Your task to perform on an android device: Open calendar and show me the fourth week of next month Image 0: 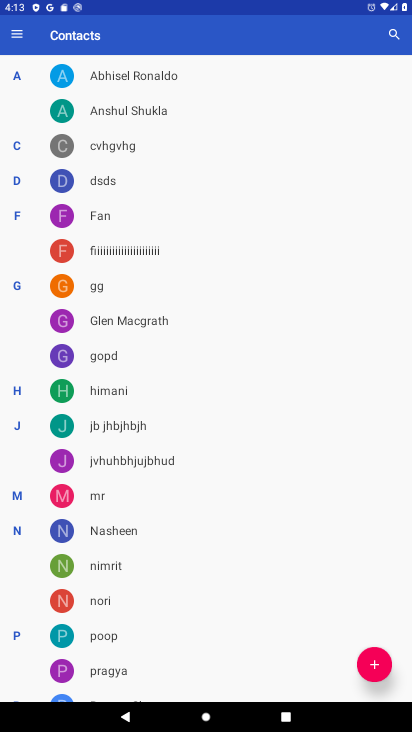
Step 0: press home button
Your task to perform on an android device: Open calendar and show me the fourth week of next month Image 1: 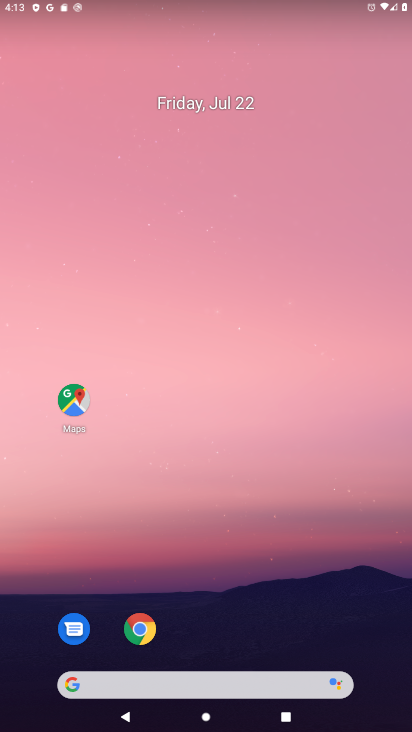
Step 1: drag from (231, 683) to (250, 259)
Your task to perform on an android device: Open calendar and show me the fourth week of next month Image 2: 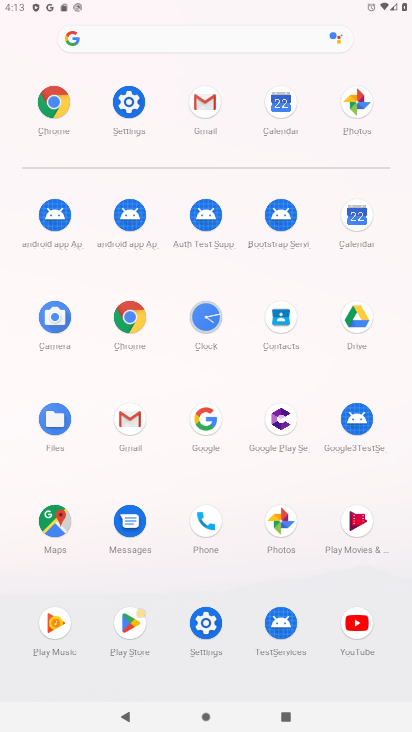
Step 2: click (134, 321)
Your task to perform on an android device: Open calendar and show me the fourth week of next month Image 3: 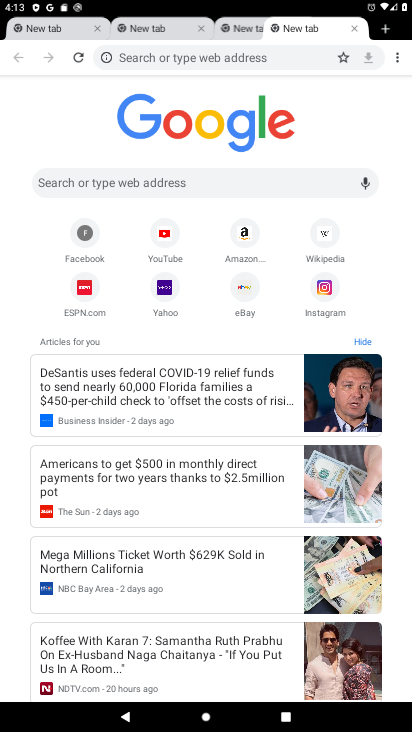
Step 3: press home button
Your task to perform on an android device: Open calendar and show me the fourth week of next month Image 4: 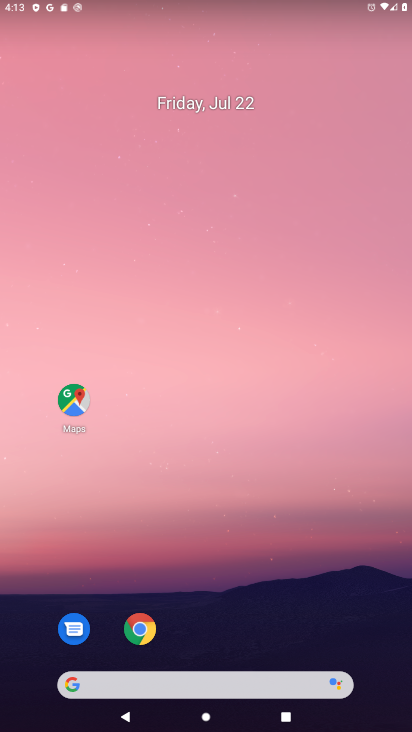
Step 4: drag from (264, 639) to (305, 197)
Your task to perform on an android device: Open calendar and show me the fourth week of next month Image 5: 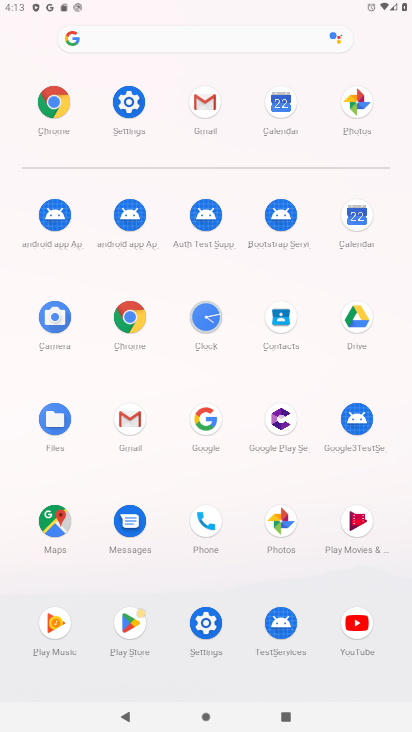
Step 5: click (288, 129)
Your task to perform on an android device: Open calendar and show me the fourth week of next month Image 6: 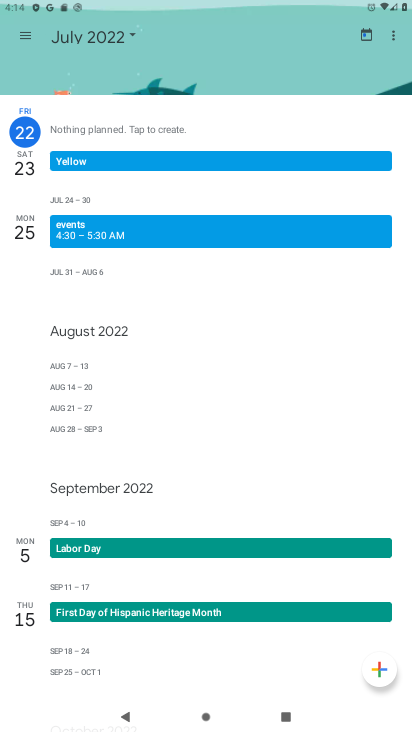
Step 6: click (120, 43)
Your task to perform on an android device: Open calendar and show me the fourth week of next month Image 7: 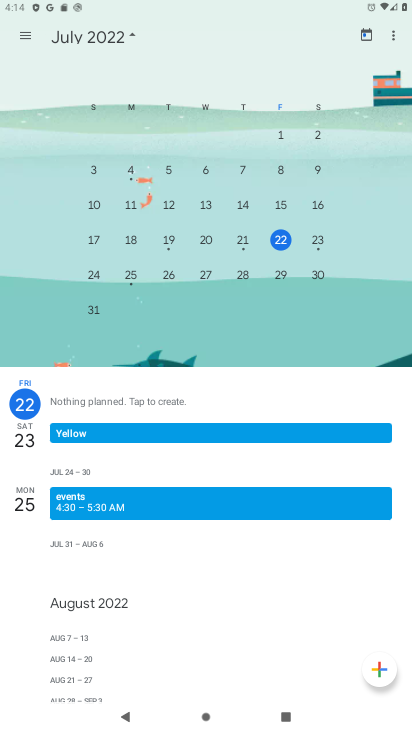
Step 7: drag from (332, 226) to (32, 316)
Your task to perform on an android device: Open calendar and show me the fourth week of next month Image 8: 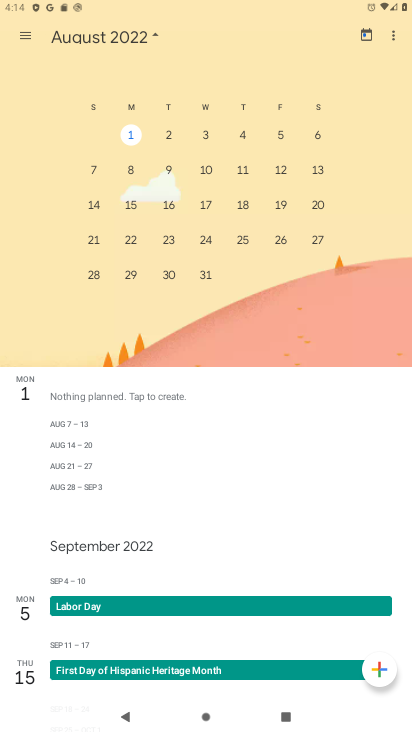
Step 8: click (132, 224)
Your task to perform on an android device: Open calendar and show me the fourth week of next month Image 9: 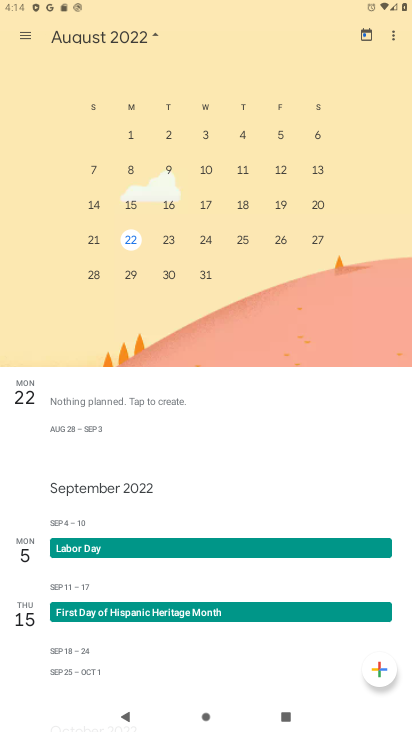
Step 9: task complete